Your task to perform on an android device: Open Amazon Image 0: 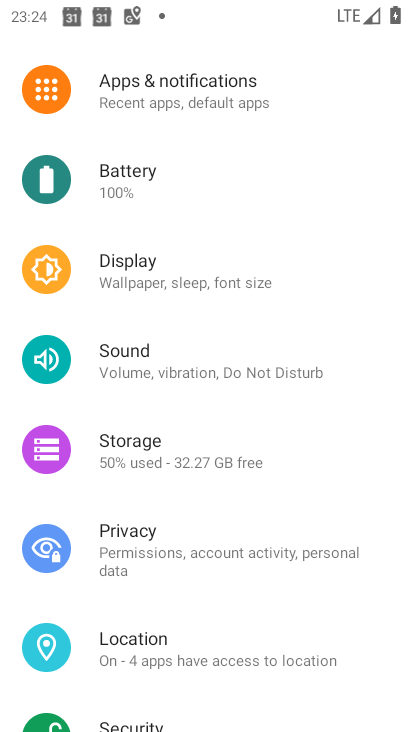
Step 0: press home button
Your task to perform on an android device: Open Amazon Image 1: 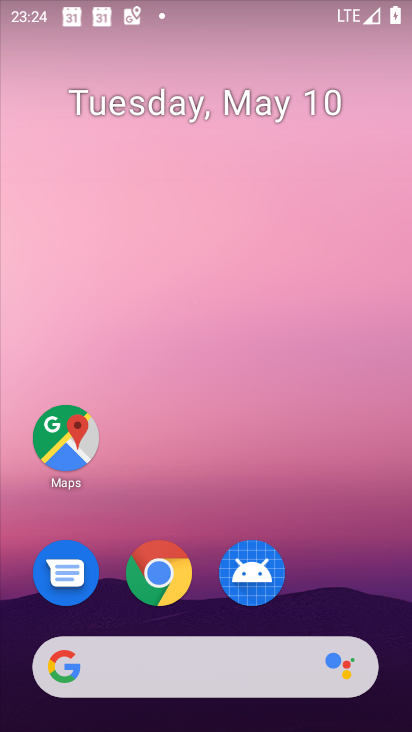
Step 1: click (160, 582)
Your task to perform on an android device: Open Amazon Image 2: 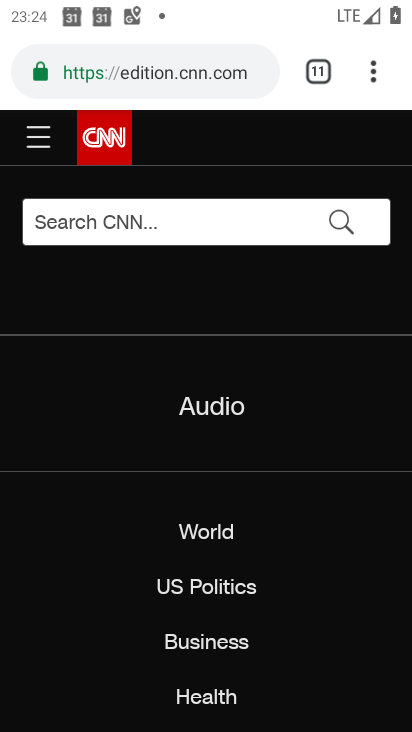
Step 2: click (374, 71)
Your task to perform on an android device: Open Amazon Image 3: 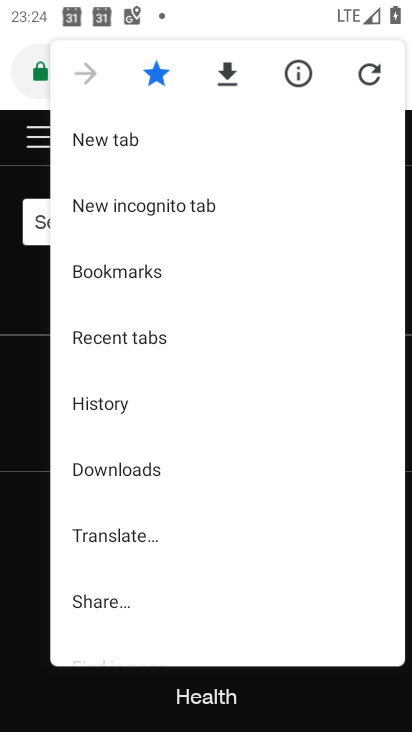
Step 3: click (114, 137)
Your task to perform on an android device: Open Amazon Image 4: 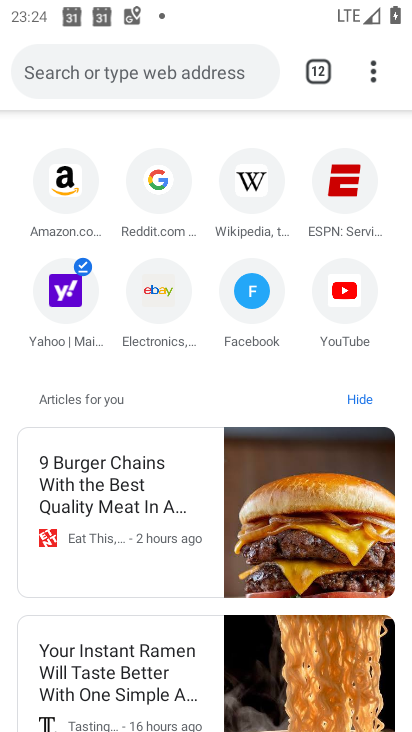
Step 4: click (47, 181)
Your task to perform on an android device: Open Amazon Image 5: 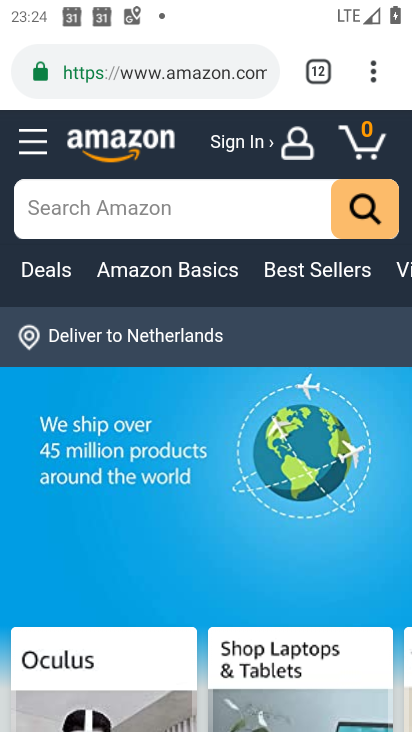
Step 5: task complete